Your task to perform on an android device: Go to wifi settings Image 0: 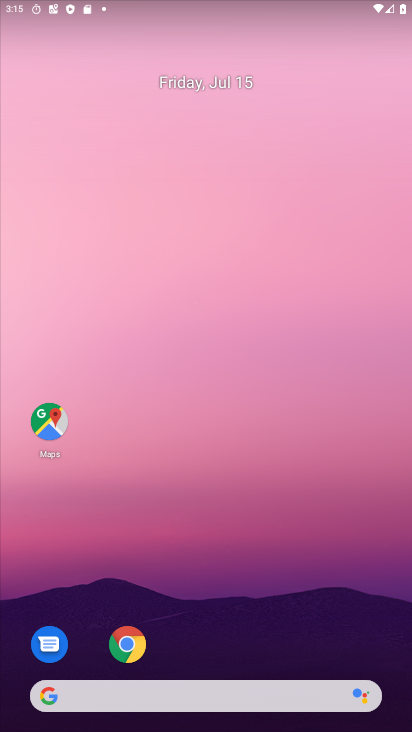
Step 0: drag from (97, 69) to (189, 599)
Your task to perform on an android device: Go to wifi settings Image 1: 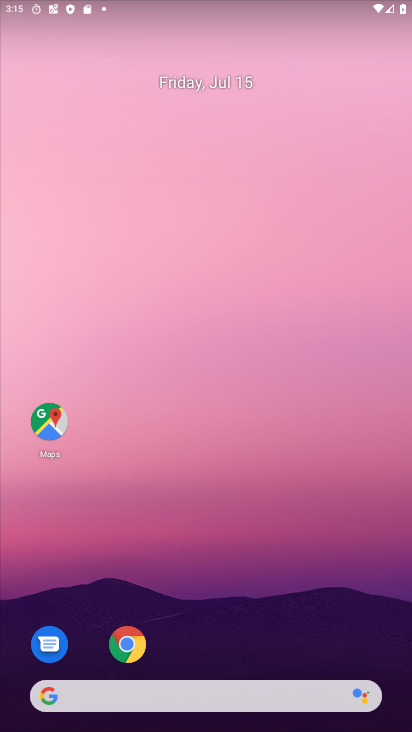
Step 1: drag from (55, 3) to (141, 554)
Your task to perform on an android device: Go to wifi settings Image 2: 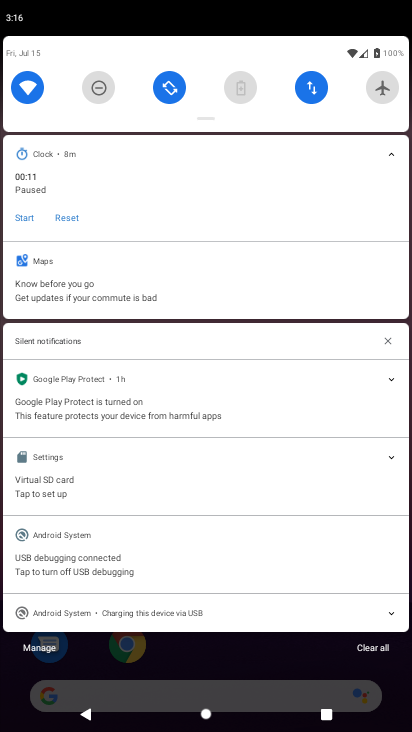
Step 2: click (26, 79)
Your task to perform on an android device: Go to wifi settings Image 3: 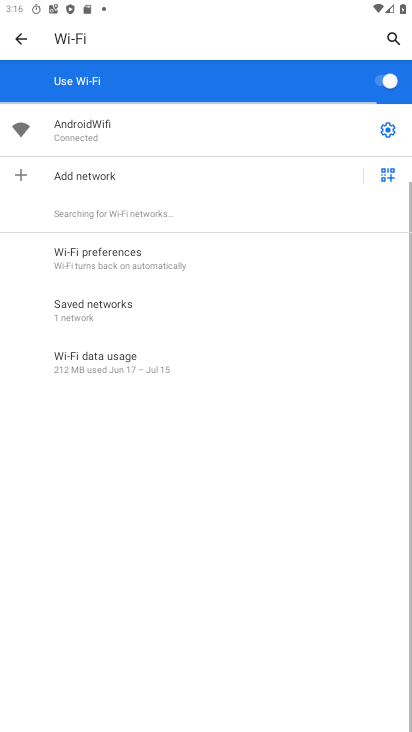
Step 3: task complete